Your task to perform on an android device: turn on the 24-hour format for clock Image 0: 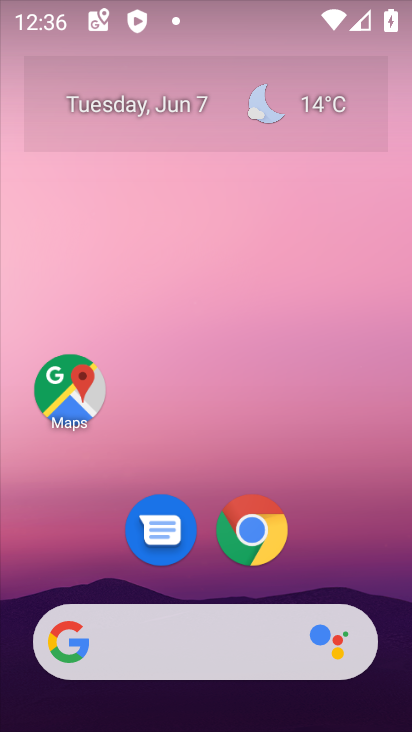
Step 0: drag from (326, 573) to (334, 225)
Your task to perform on an android device: turn on the 24-hour format for clock Image 1: 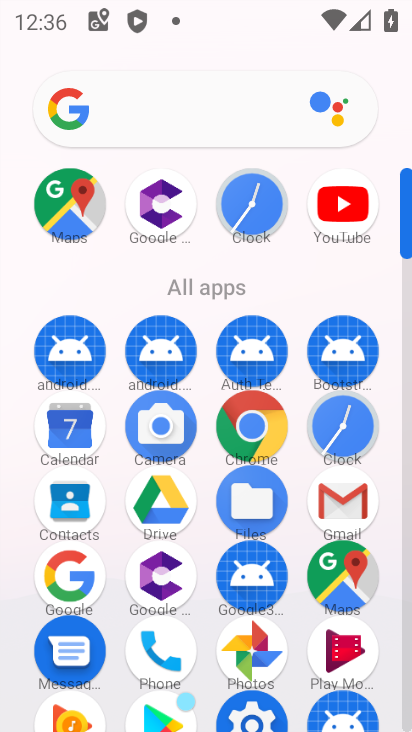
Step 1: click (332, 419)
Your task to perform on an android device: turn on the 24-hour format for clock Image 2: 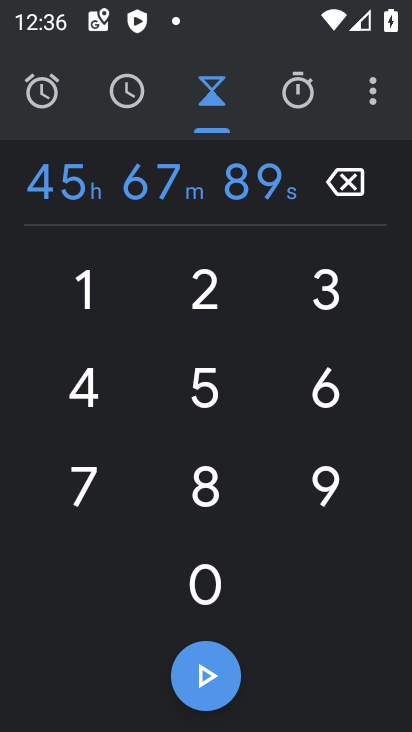
Step 2: click (372, 83)
Your task to perform on an android device: turn on the 24-hour format for clock Image 3: 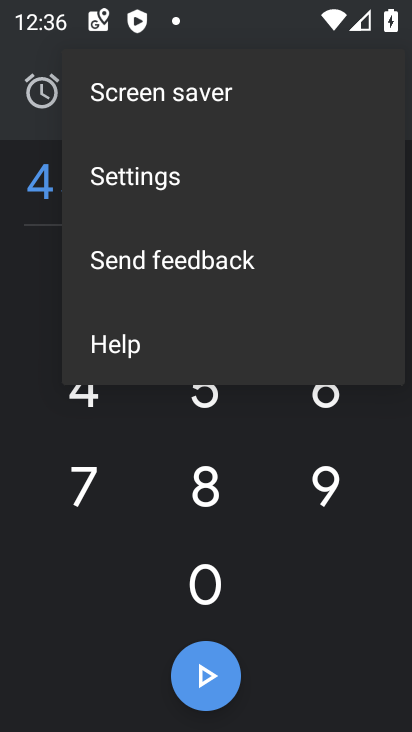
Step 3: click (186, 179)
Your task to perform on an android device: turn on the 24-hour format for clock Image 4: 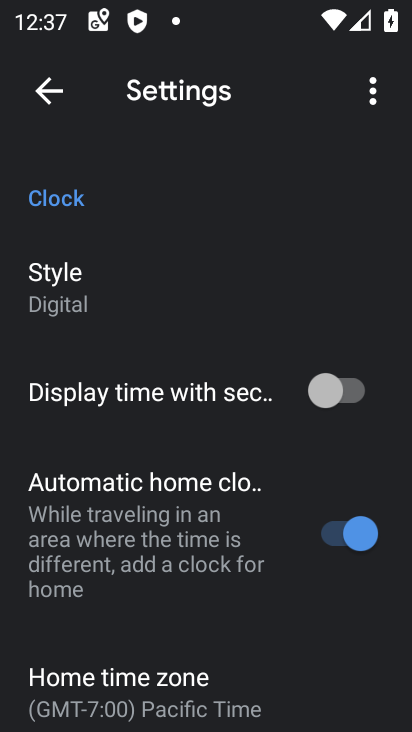
Step 4: click (327, 389)
Your task to perform on an android device: turn on the 24-hour format for clock Image 5: 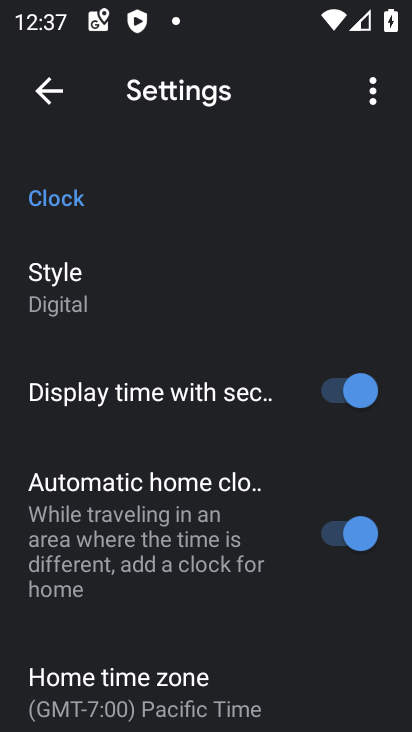
Step 5: click (327, 389)
Your task to perform on an android device: turn on the 24-hour format for clock Image 6: 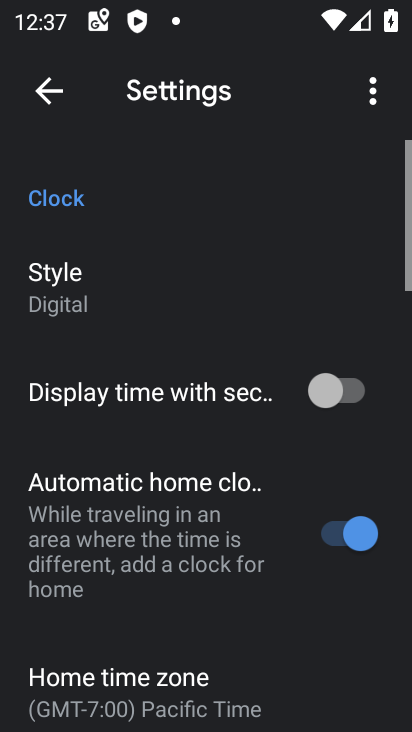
Step 6: drag from (213, 657) to (170, 218)
Your task to perform on an android device: turn on the 24-hour format for clock Image 7: 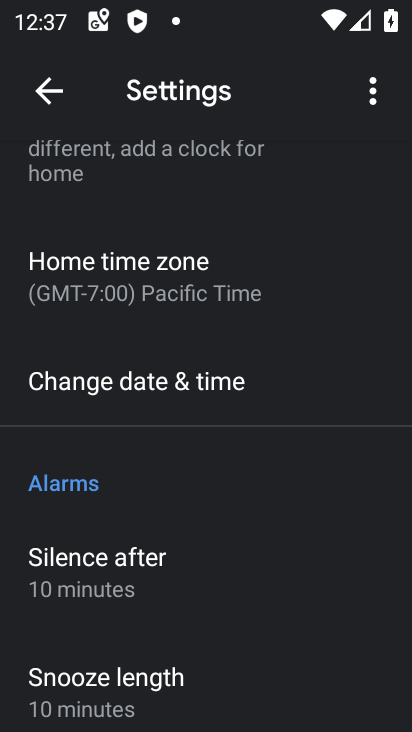
Step 7: click (169, 399)
Your task to perform on an android device: turn on the 24-hour format for clock Image 8: 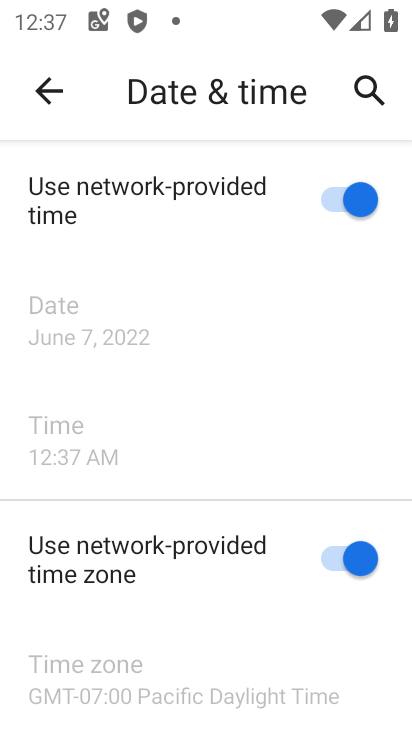
Step 8: drag from (264, 572) to (280, 217)
Your task to perform on an android device: turn on the 24-hour format for clock Image 9: 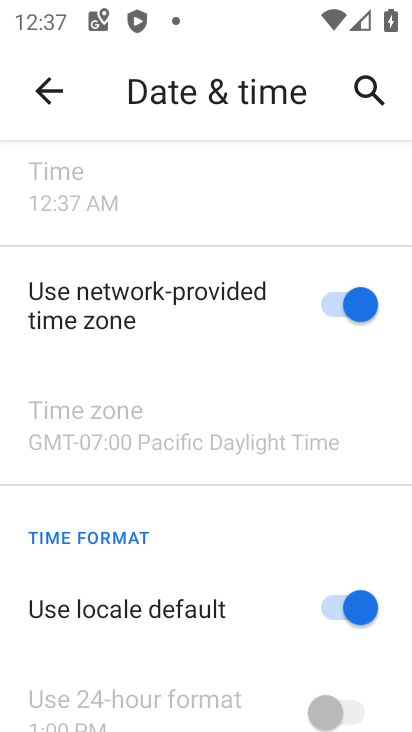
Step 9: drag from (269, 632) to (279, 331)
Your task to perform on an android device: turn on the 24-hour format for clock Image 10: 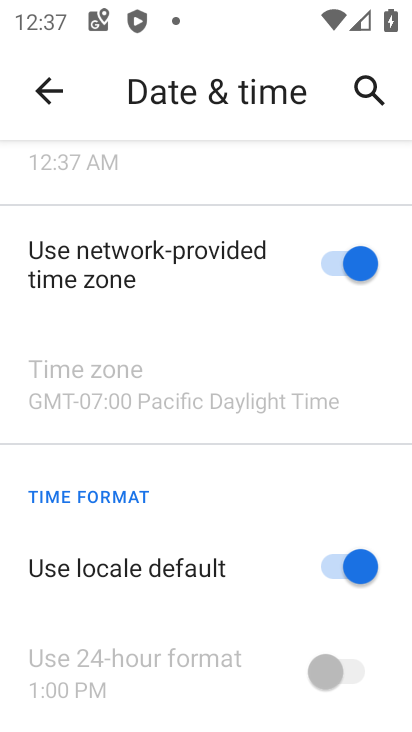
Step 10: click (325, 554)
Your task to perform on an android device: turn on the 24-hour format for clock Image 11: 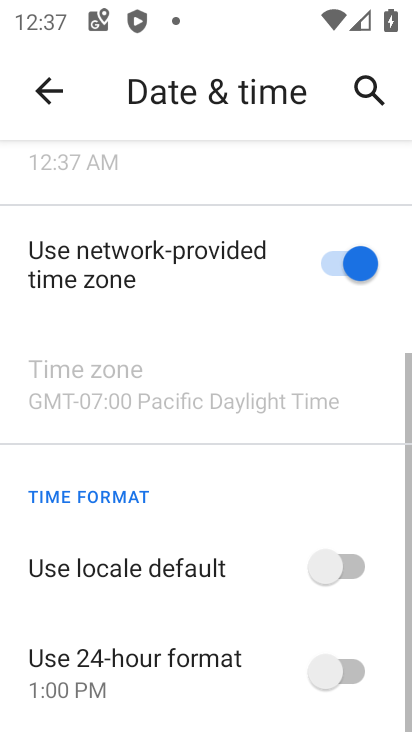
Step 11: click (341, 654)
Your task to perform on an android device: turn on the 24-hour format for clock Image 12: 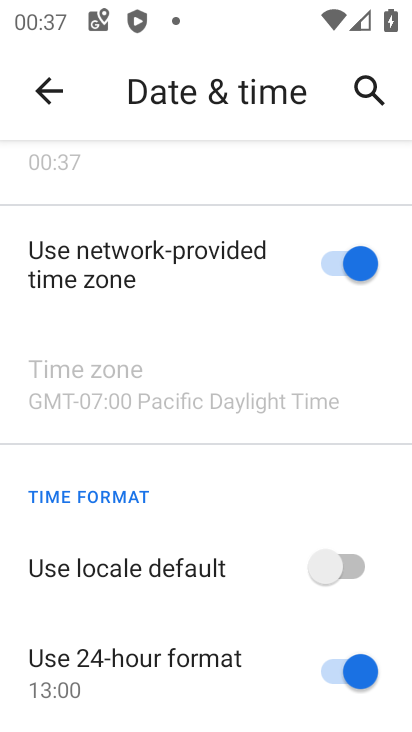
Step 12: task complete